Your task to perform on an android device: Show me the alarms in the clock app Image 0: 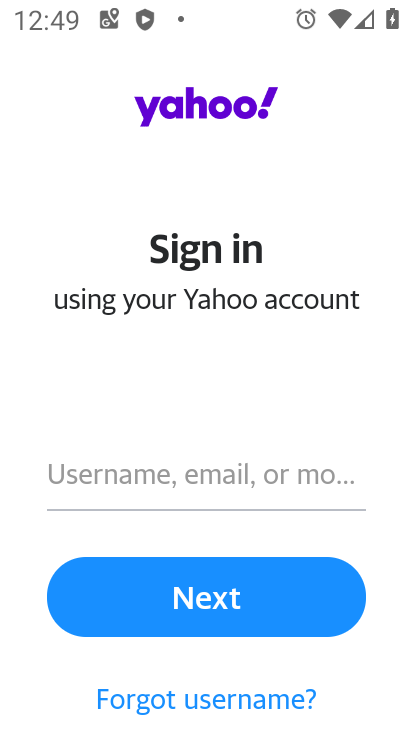
Step 0: press home button
Your task to perform on an android device: Show me the alarms in the clock app Image 1: 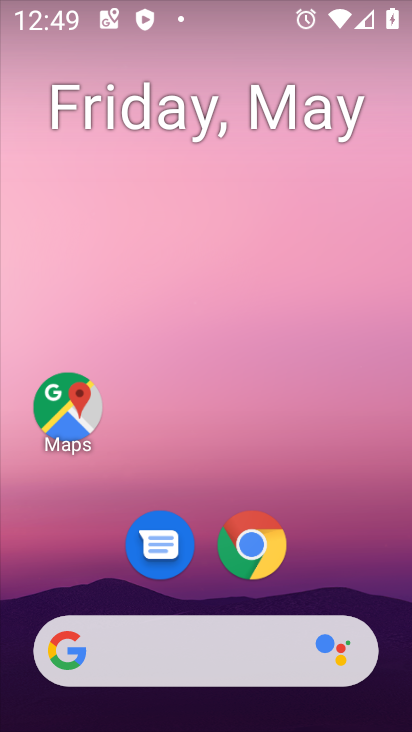
Step 1: drag from (317, 447) to (335, 170)
Your task to perform on an android device: Show me the alarms in the clock app Image 2: 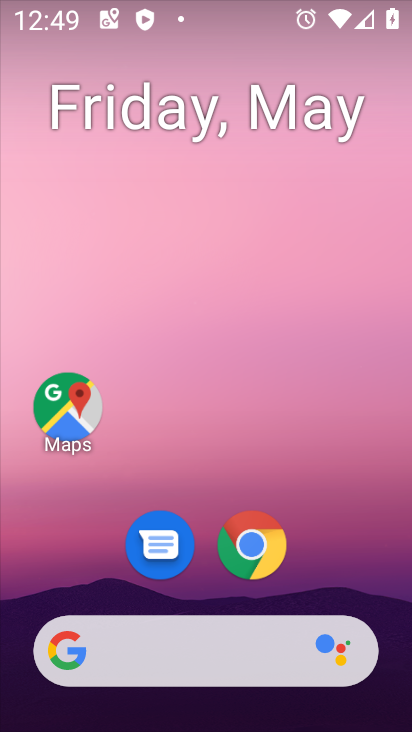
Step 2: drag from (323, 490) to (317, 154)
Your task to perform on an android device: Show me the alarms in the clock app Image 3: 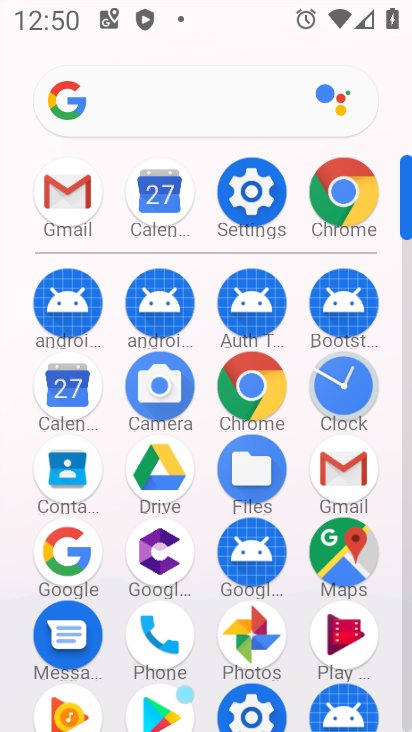
Step 3: click (336, 384)
Your task to perform on an android device: Show me the alarms in the clock app Image 4: 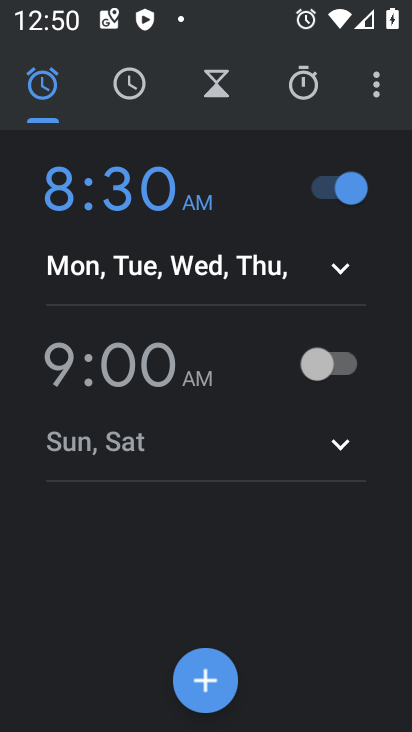
Step 4: task complete